Your task to perform on an android device: Go to Android settings Image 0: 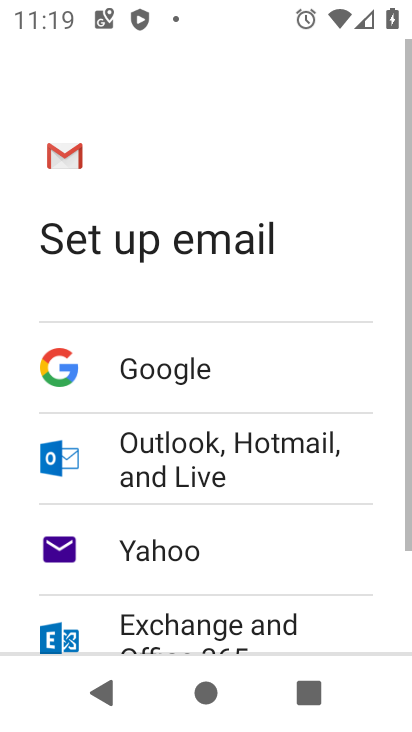
Step 0: press home button
Your task to perform on an android device: Go to Android settings Image 1: 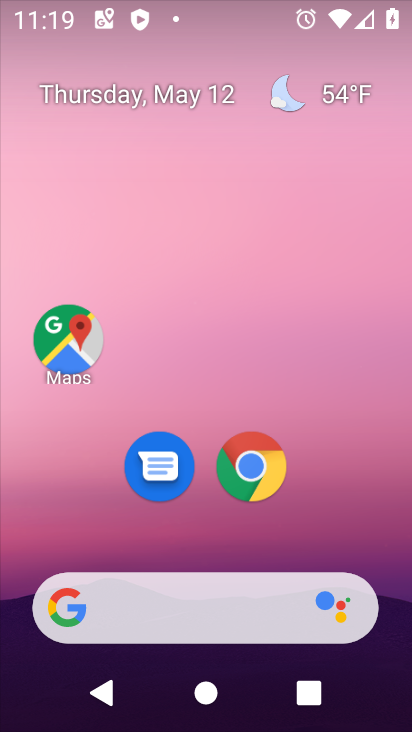
Step 1: drag from (380, 518) to (362, 156)
Your task to perform on an android device: Go to Android settings Image 2: 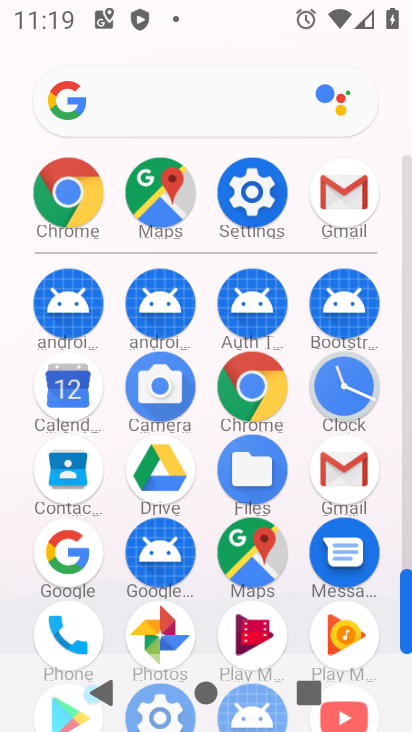
Step 2: click (247, 190)
Your task to perform on an android device: Go to Android settings Image 3: 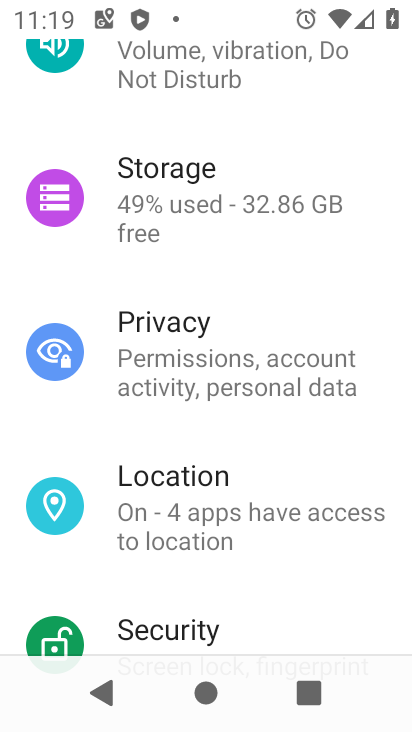
Step 3: task complete